Your task to perform on an android device: Do I have any events this weekend? Image 0: 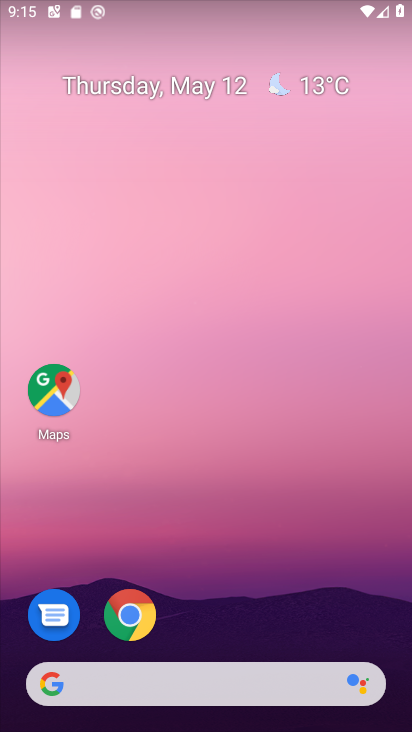
Step 0: drag from (258, 530) to (74, 9)
Your task to perform on an android device: Do I have any events this weekend? Image 1: 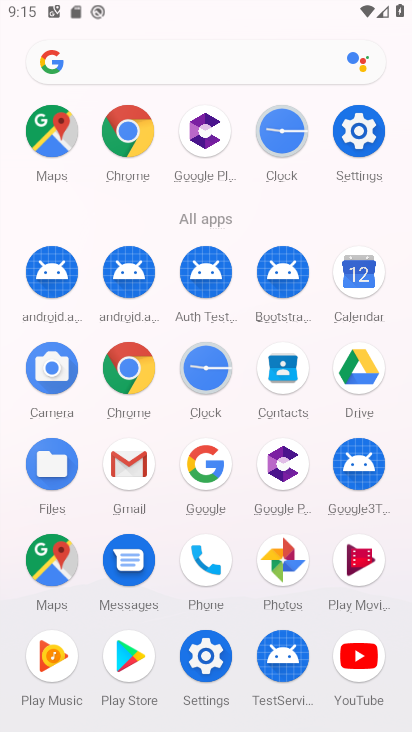
Step 1: click (367, 270)
Your task to perform on an android device: Do I have any events this weekend? Image 2: 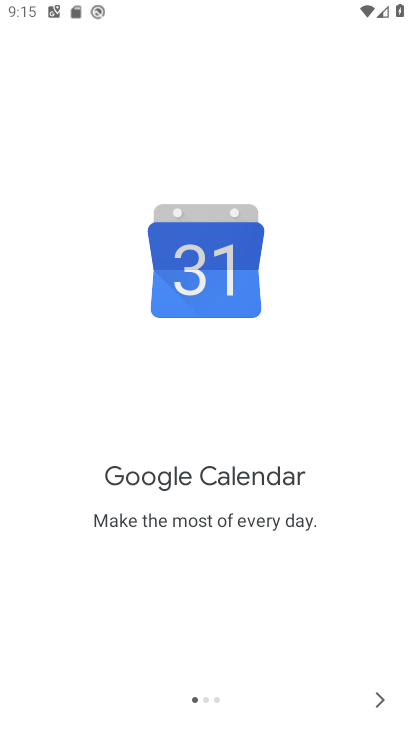
Step 2: click (377, 698)
Your task to perform on an android device: Do I have any events this weekend? Image 3: 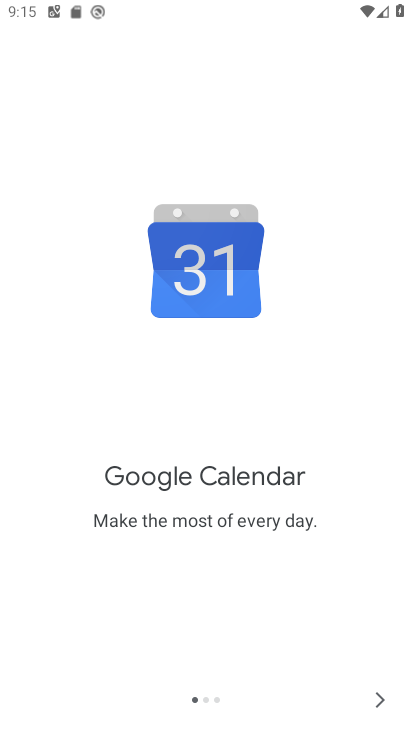
Step 3: click (377, 698)
Your task to perform on an android device: Do I have any events this weekend? Image 4: 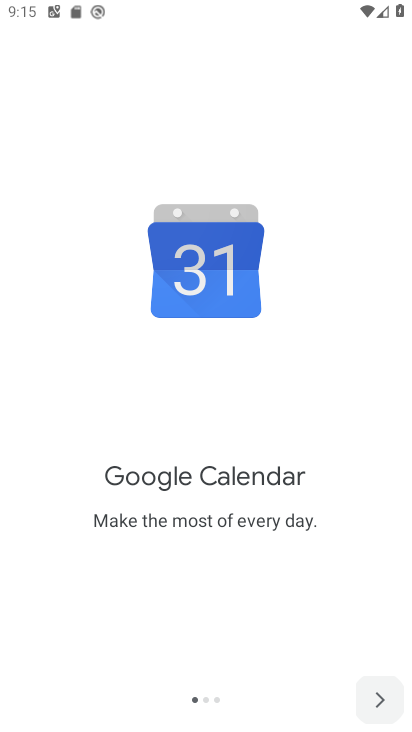
Step 4: click (377, 698)
Your task to perform on an android device: Do I have any events this weekend? Image 5: 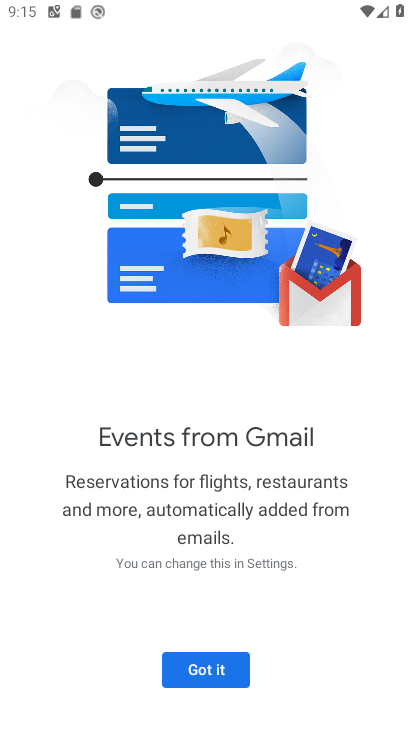
Step 5: click (194, 672)
Your task to perform on an android device: Do I have any events this weekend? Image 6: 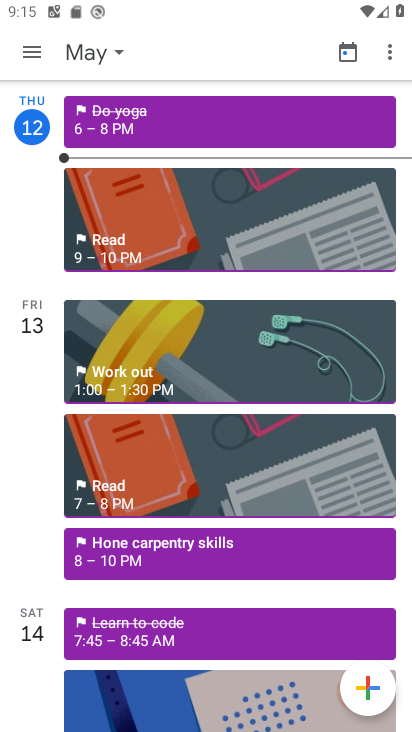
Step 6: click (21, 48)
Your task to perform on an android device: Do I have any events this weekend? Image 7: 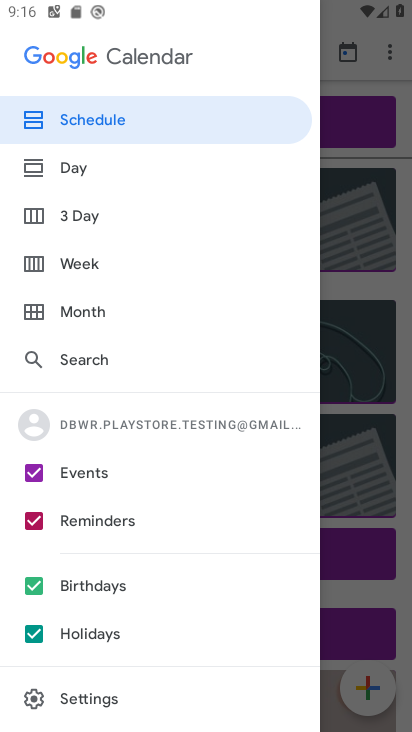
Step 7: click (78, 257)
Your task to perform on an android device: Do I have any events this weekend? Image 8: 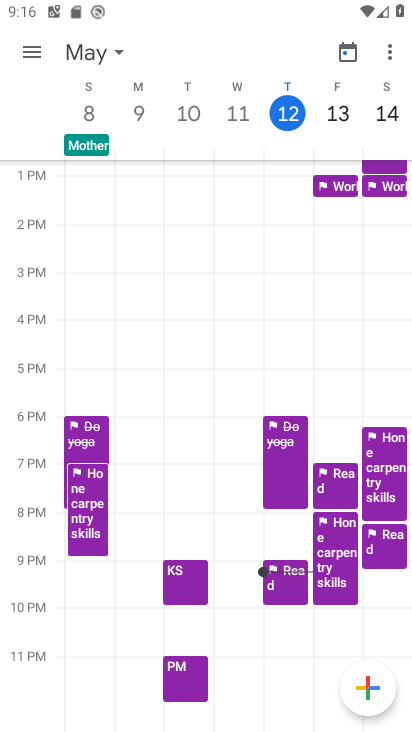
Step 8: task complete